Your task to perform on an android device: Search for "razer deathadder" on newegg, select the first entry, and add it to the cart. Image 0: 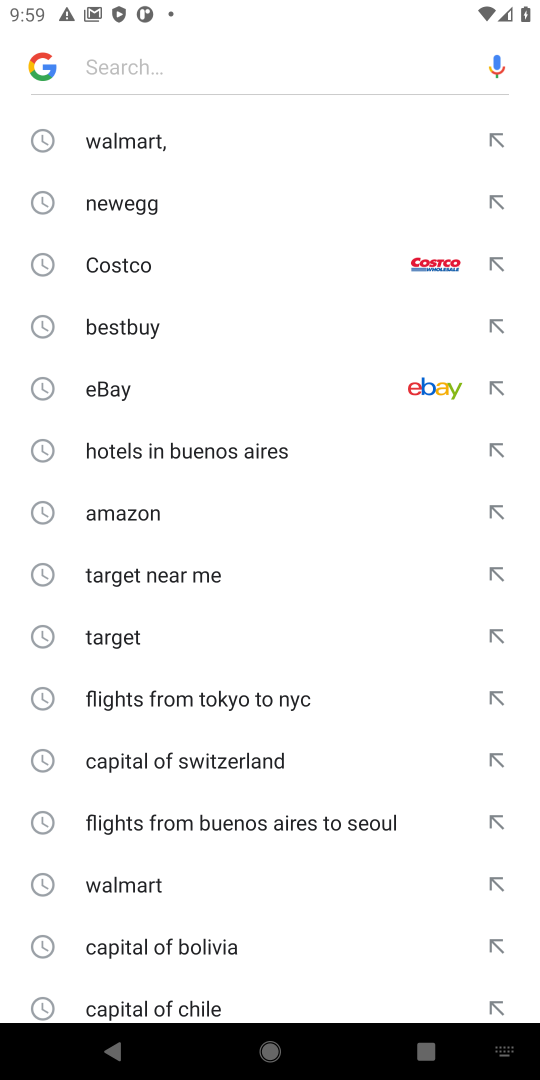
Step 0: press home button
Your task to perform on an android device: Search for "razer deathadder" on newegg, select the first entry, and add it to the cart. Image 1: 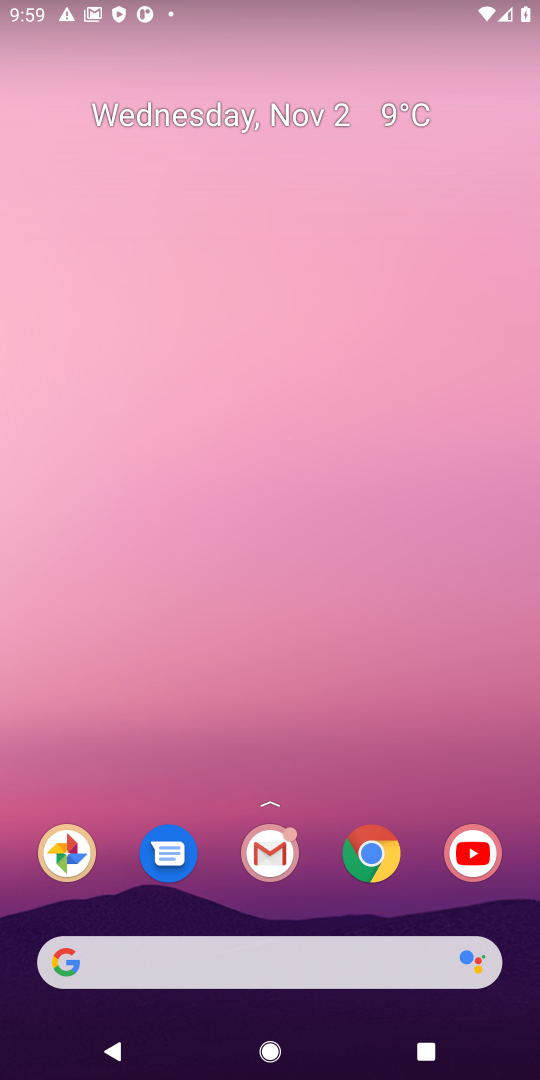
Step 1: click (357, 867)
Your task to perform on an android device: Search for "razer deathadder" on newegg, select the first entry, and add it to the cart. Image 2: 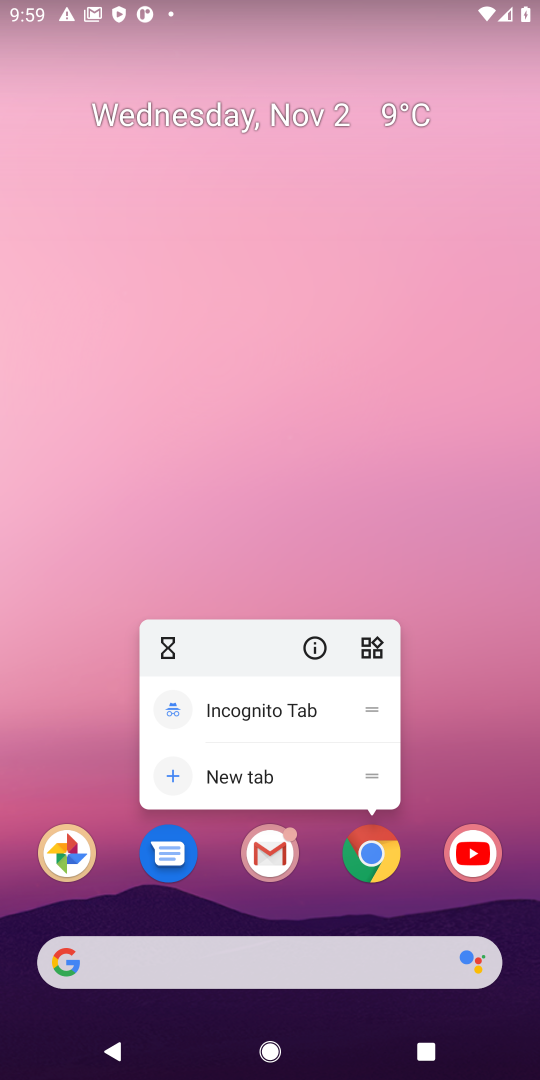
Step 2: click (370, 854)
Your task to perform on an android device: Search for "razer deathadder" on newegg, select the first entry, and add it to the cart. Image 3: 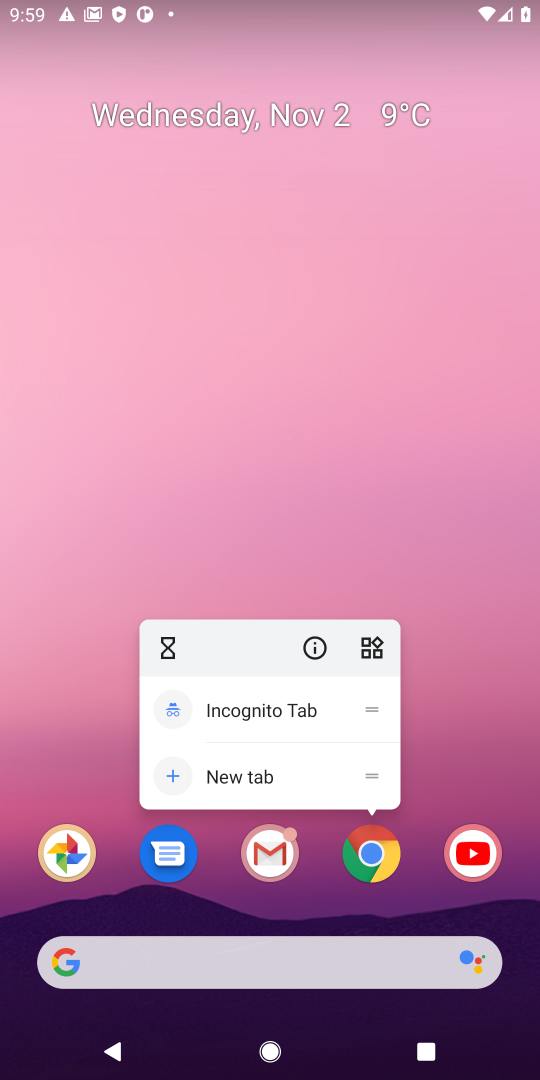
Step 3: click (370, 857)
Your task to perform on an android device: Search for "razer deathadder" on newegg, select the first entry, and add it to the cart. Image 4: 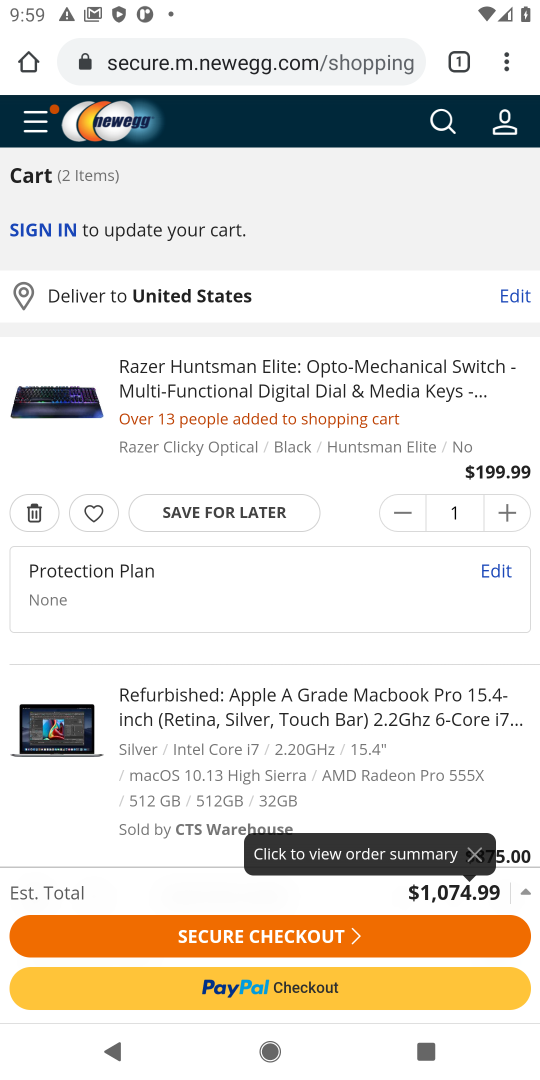
Step 4: click (434, 120)
Your task to perform on an android device: Search for "razer deathadder" on newegg, select the first entry, and add it to the cart. Image 5: 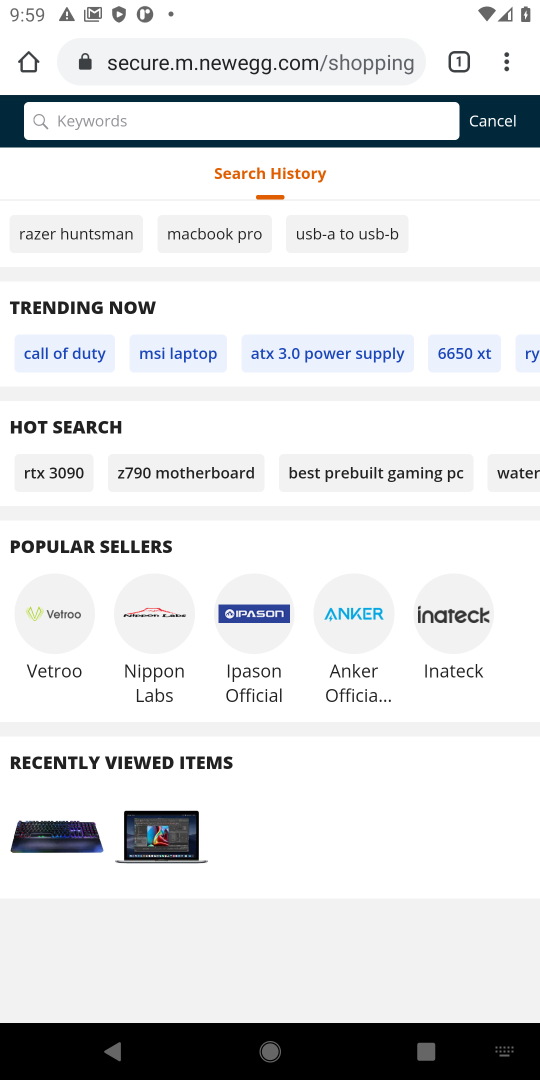
Step 5: click (444, 118)
Your task to perform on an android device: Search for "razer deathadder" on newegg, select the first entry, and add it to the cart. Image 6: 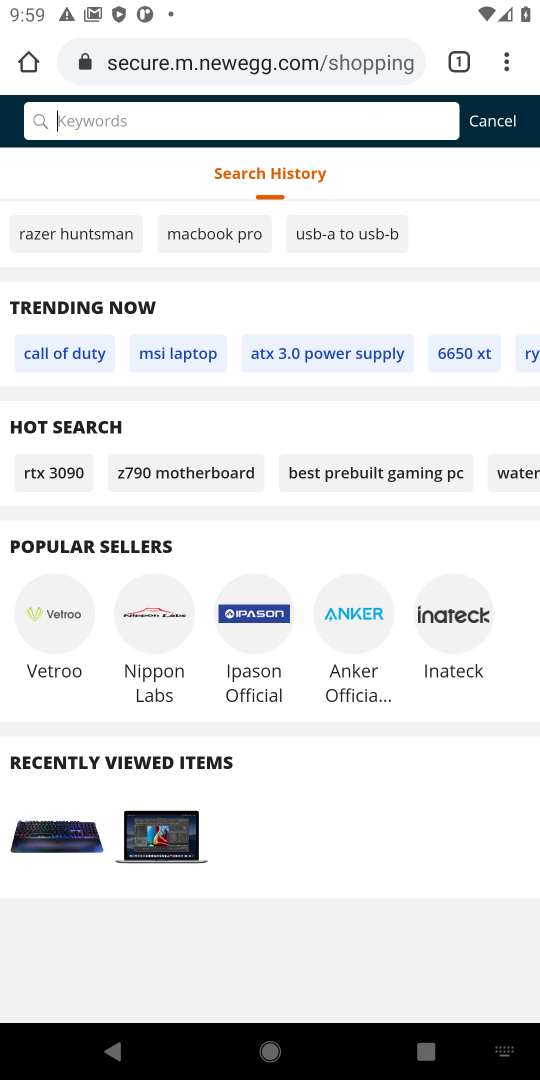
Step 6: click (291, 112)
Your task to perform on an android device: Search for "razer deathadder" on newegg, select the first entry, and add it to the cart. Image 7: 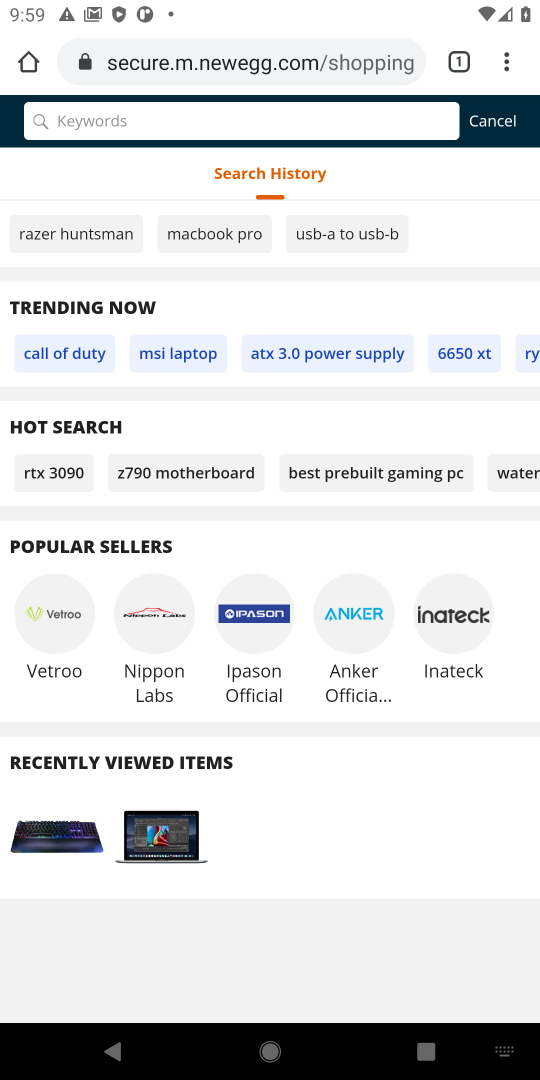
Step 7: type "razer deathadder"
Your task to perform on an android device: Search for "razer deathadder" on newegg, select the first entry, and add it to the cart. Image 8: 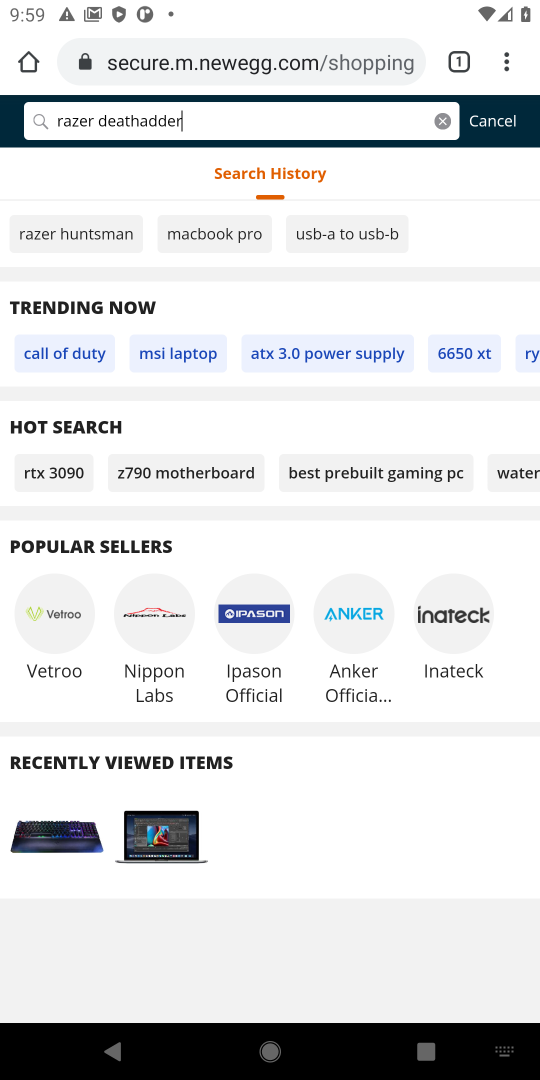
Step 8: press enter
Your task to perform on an android device: Search for "razer deathadder" on newegg, select the first entry, and add it to the cart. Image 9: 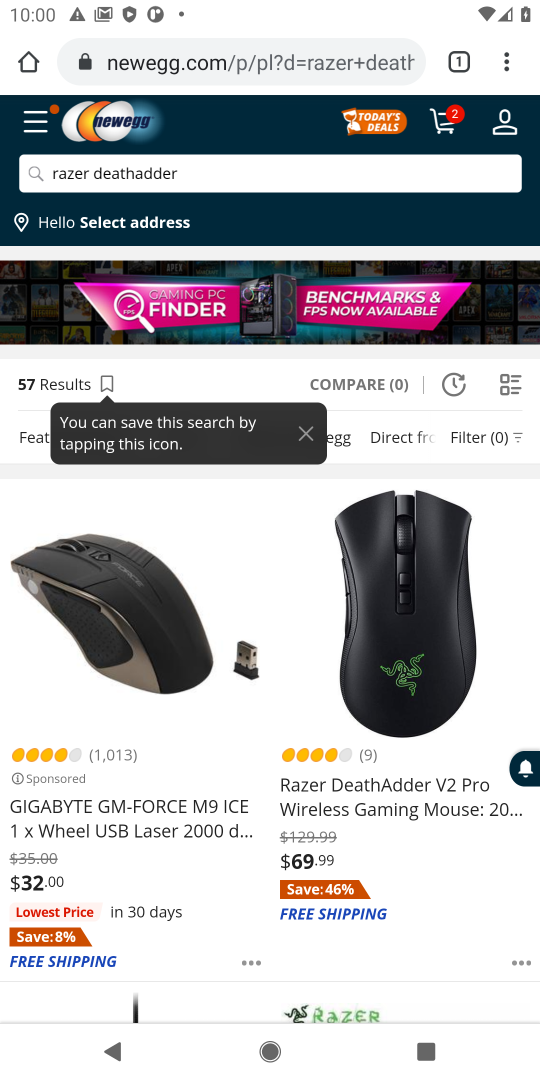
Step 9: task complete